Your task to perform on an android device: Go to Maps Image 0: 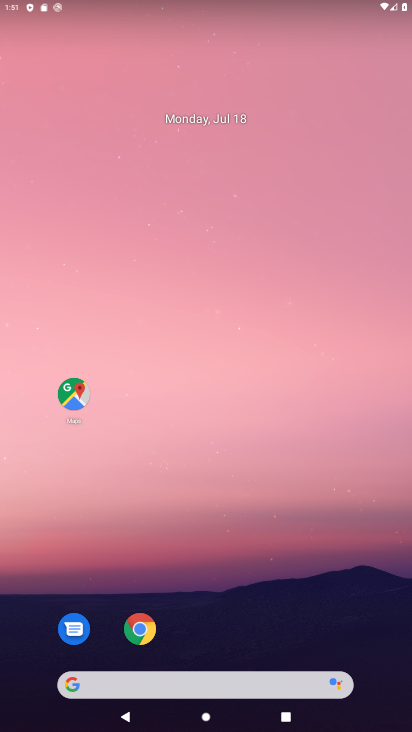
Step 0: click (77, 392)
Your task to perform on an android device: Go to Maps Image 1: 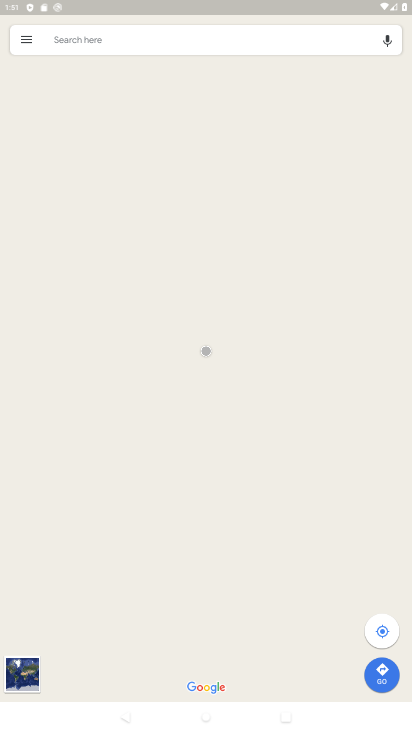
Step 1: task complete